Your task to perform on an android device: Open sound settings Image 0: 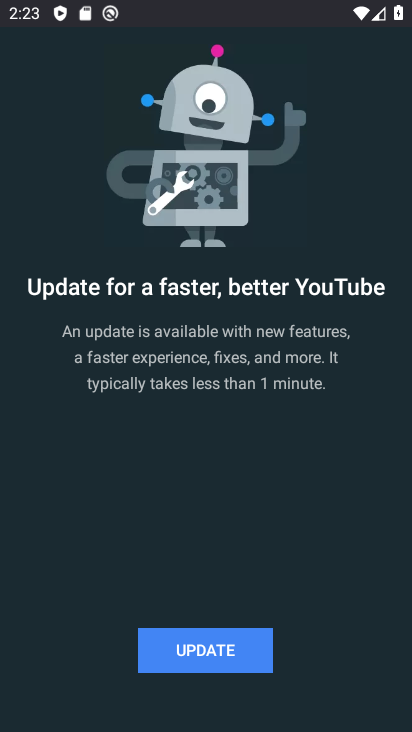
Step 0: press home button
Your task to perform on an android device: Open sound settings Image 1: 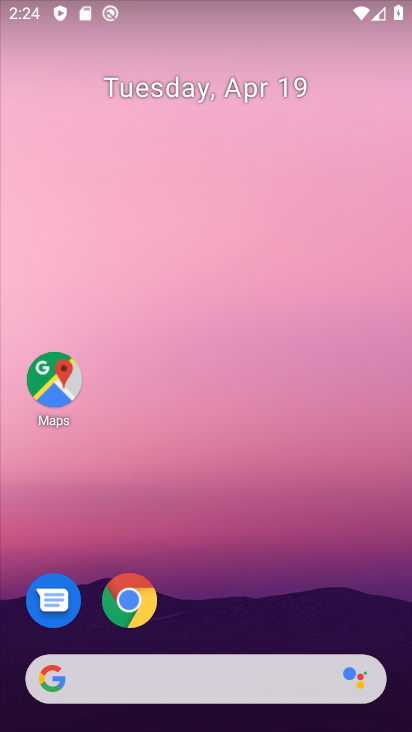
Step 1: drag from (311, 579) to (336, 98)
Your task to perform on an android device: Open sound settings Image 2: 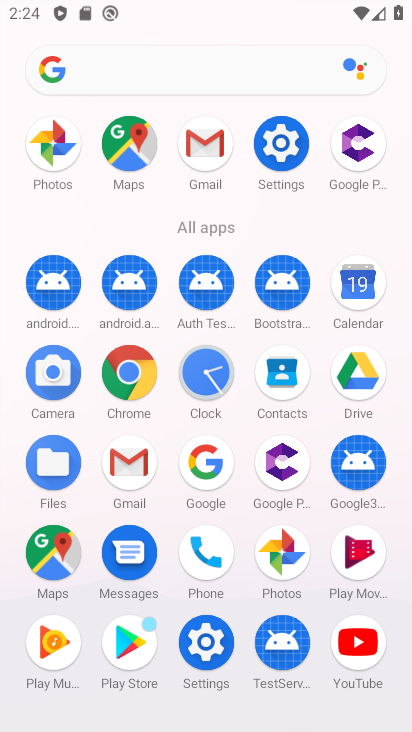
Step 2: click (202, 641)
Your task to perform on an android device: Open sound settings Image 3: 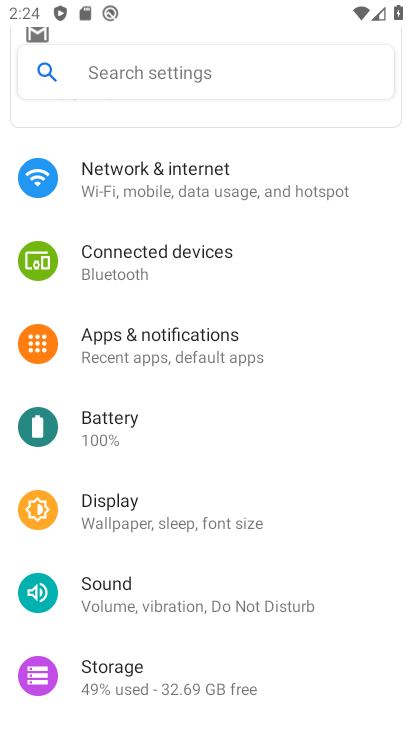
Step 3: drag from (329, 575) to (333, 433)
Your task to perform on an android device: Open sound settings Image 4: 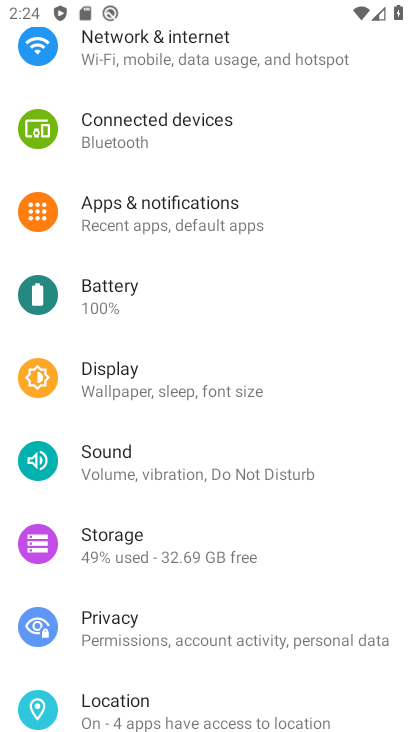
Step 4: click (122, 467)
Your task to perform on an android device: Open sound settings Image 5: 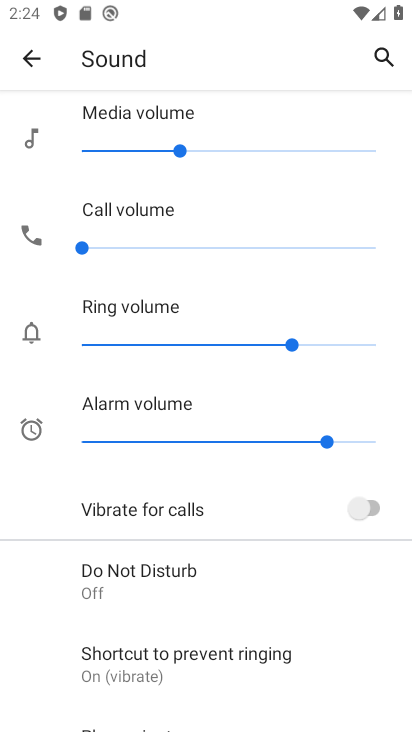
Step 5: task complete